Your task to perform on an android device: Check the best rated table lamp on Crate and Barrel Image 0: 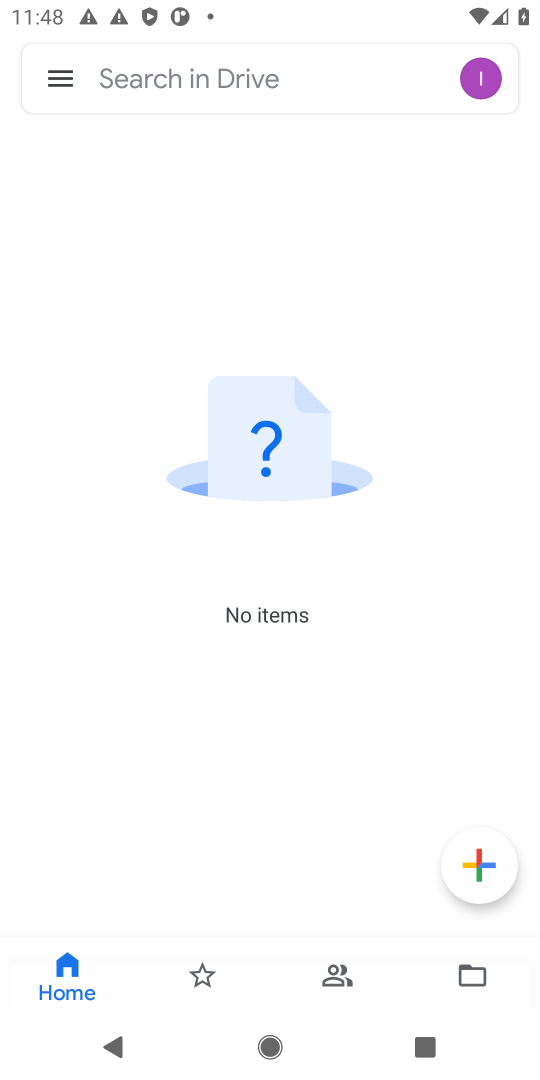
Step 0: press home button
Your task to perform on an android device: Check the best rated table lamp on Crate and Barrel Image 1: 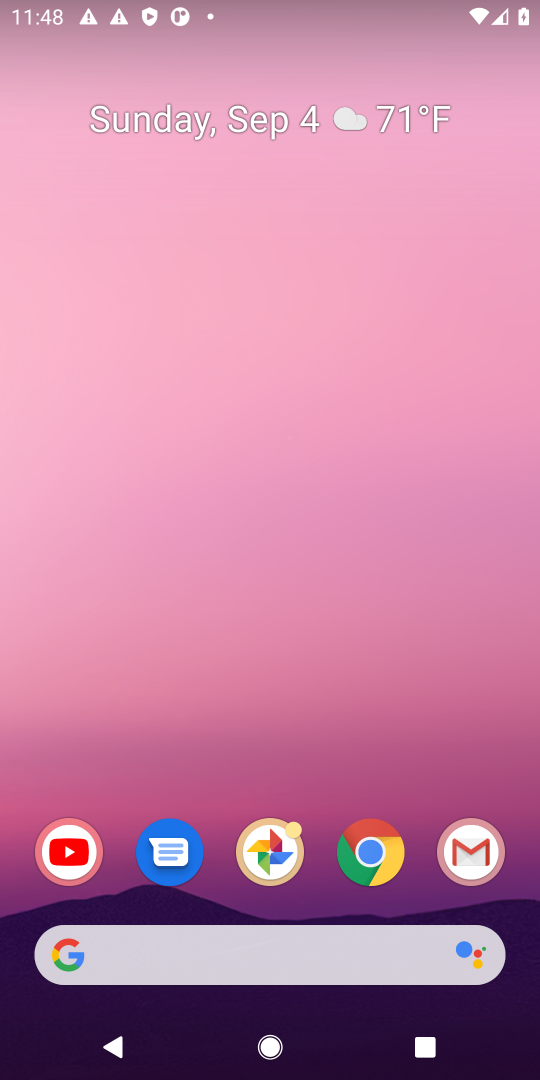
Step 1: click (371, 856)
Your task to perform on an android device: Check the best rated table lamp on Crate and Barrel Image 2: 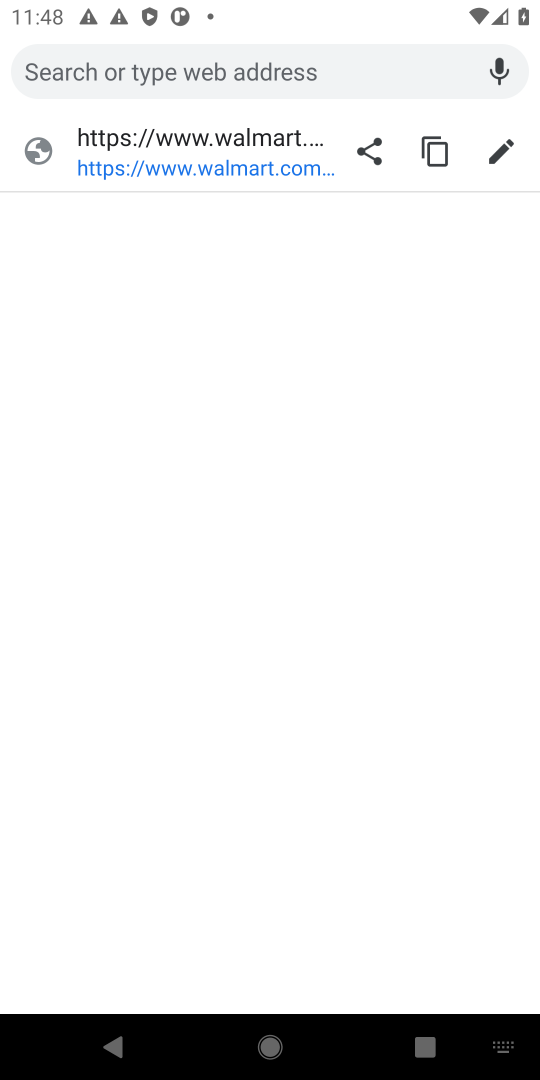
Step 2: type "Crate and Barrel"
Your task to perform on an android device: Check the best rated table lamp on Crate and Barrel Image 3: 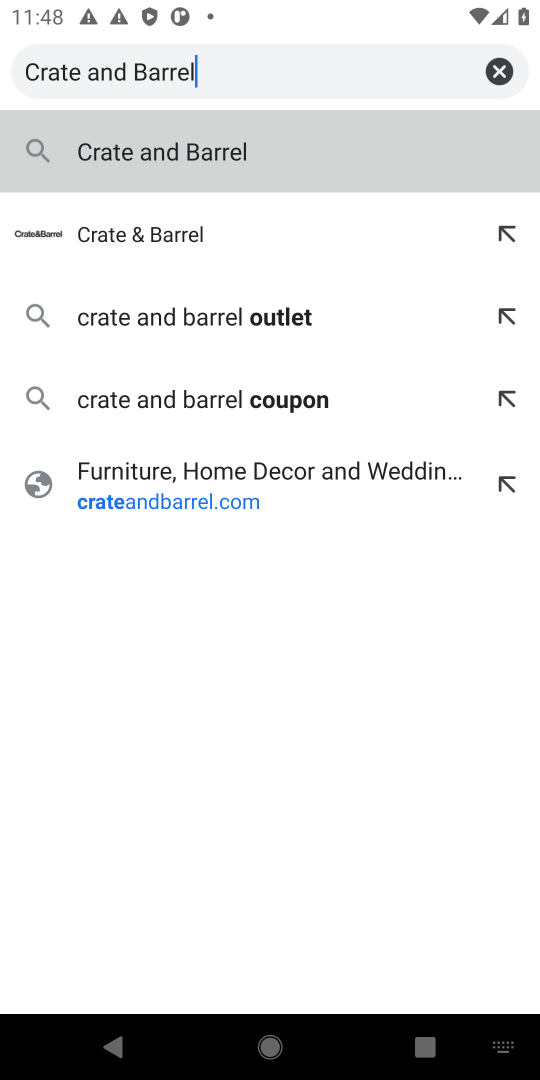
Step 3: click (163, 235)
Your task to perform on an android device: Check the best rated table lamp on Crate and Barrel Image 4: 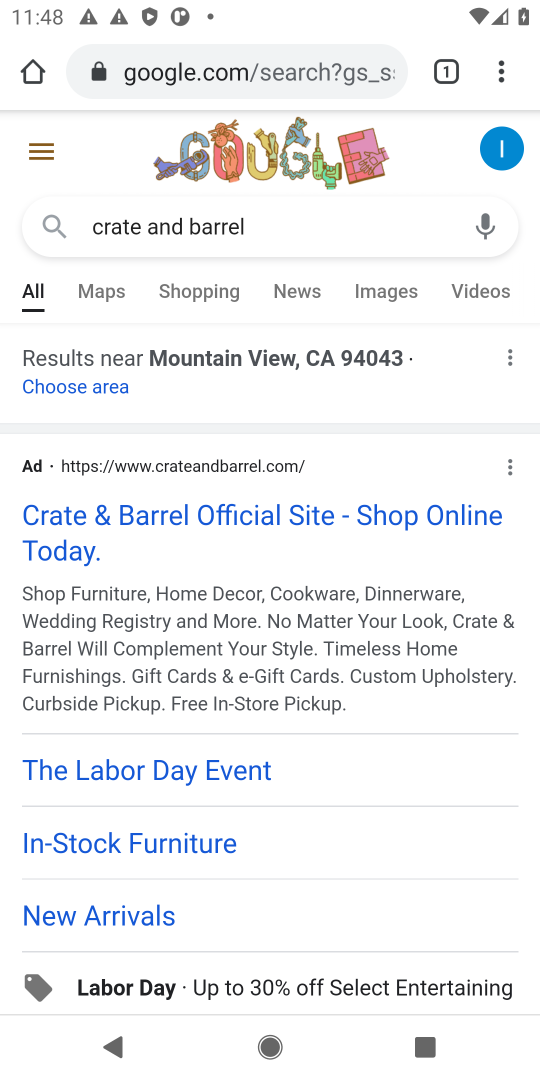
Step 4: click (103, 537)
Your task to perform on an android device: Check the best rated table lamp on Crate and Barrel Image 5: 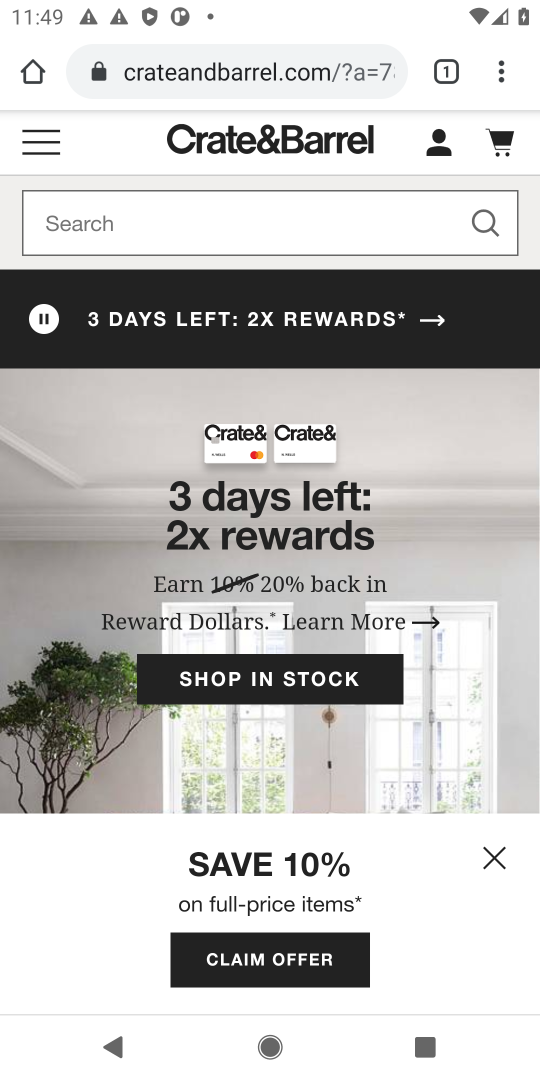
Step 5: click (100, 223)
Your task to perform on an android device: Check the best rated table lamp on Crate and Barrel Image 6: 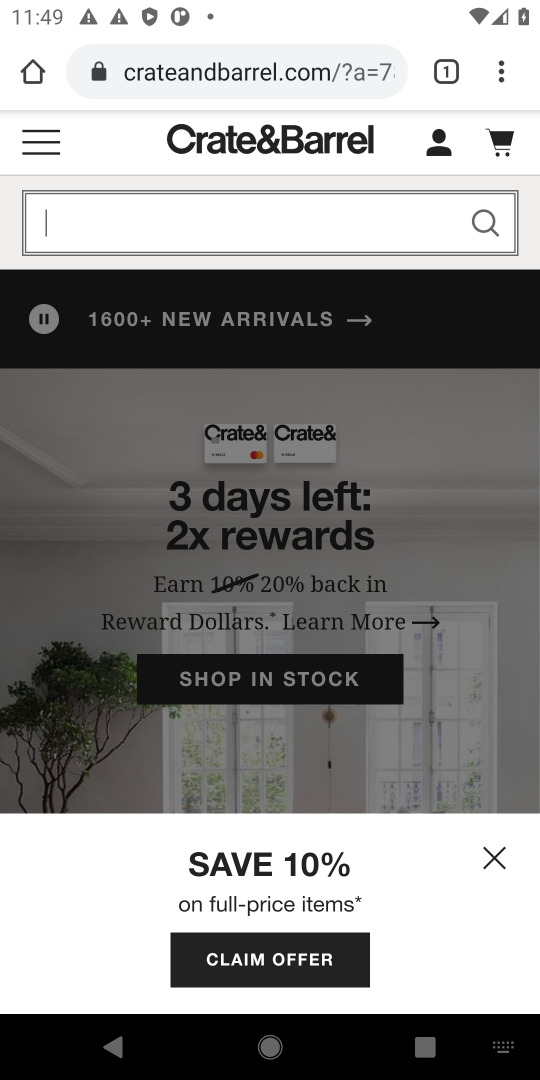
Step 6: type "table lamp"
Your task to perform on an android device: Check the best rated table lamp on Crate and Barrel Image 7: 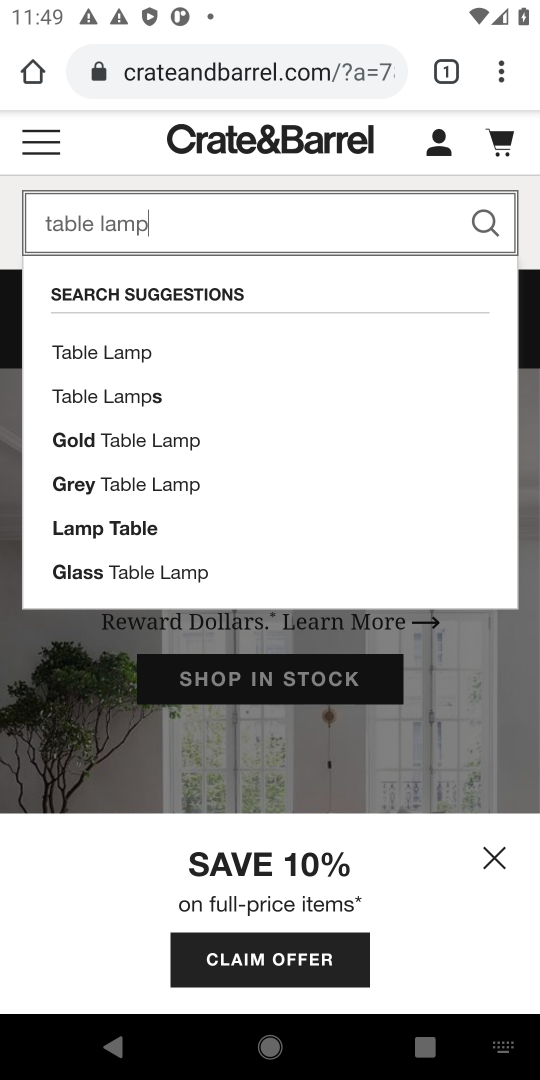
Step 7: click (88, 350)
Your task to perform on an android device: Check the best rated table lamp on Crate and Barrel Image 8: 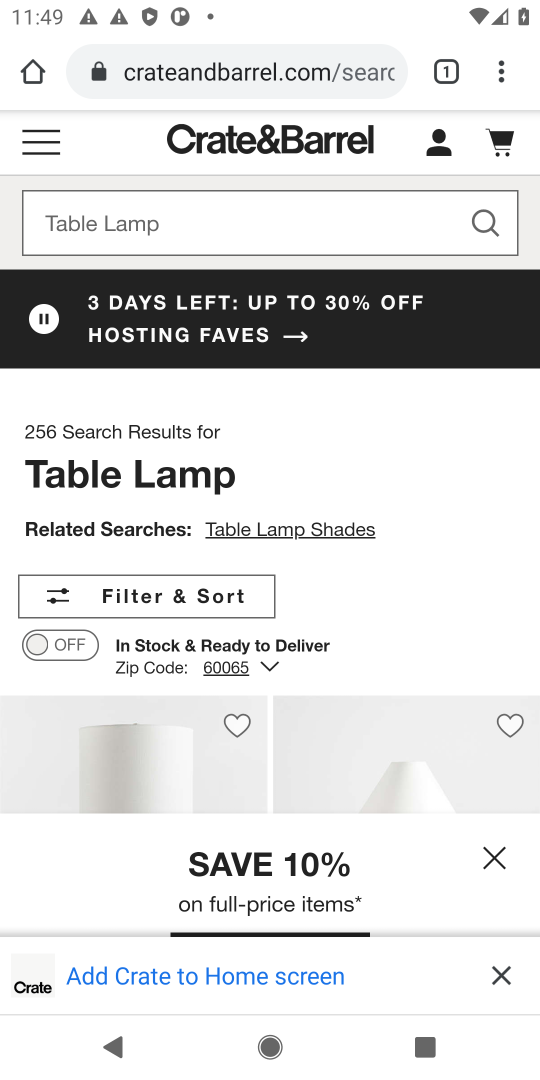
Step 8: click (56, 596)
Your task to perform on an android device: Check the best rated table lamp on Crate and Barrel Image 9: 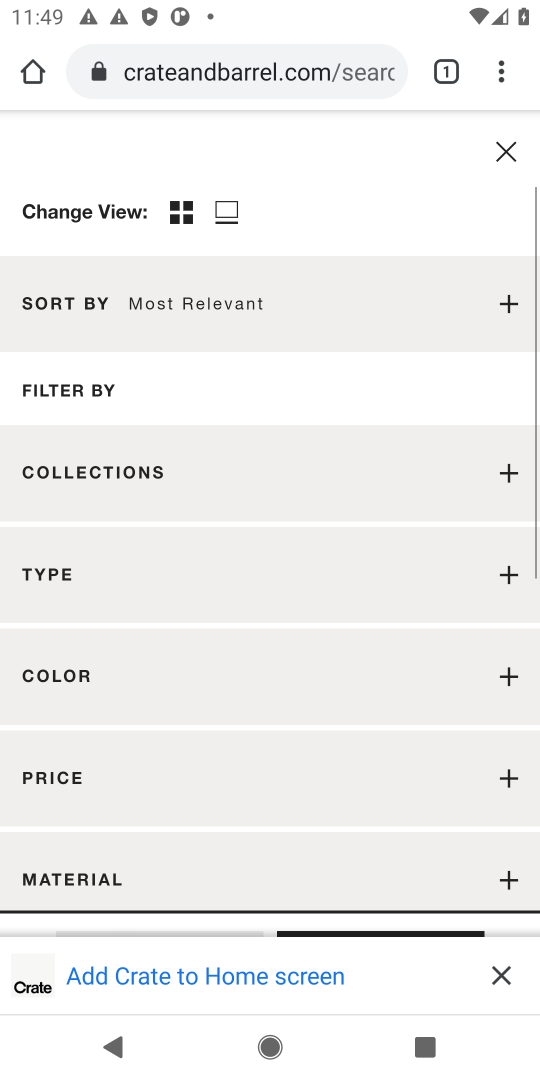
Step 9: click (514, 303)
Your task to perform on an android device: Check the best rated table lamp on Crate and Barrel Image 10: 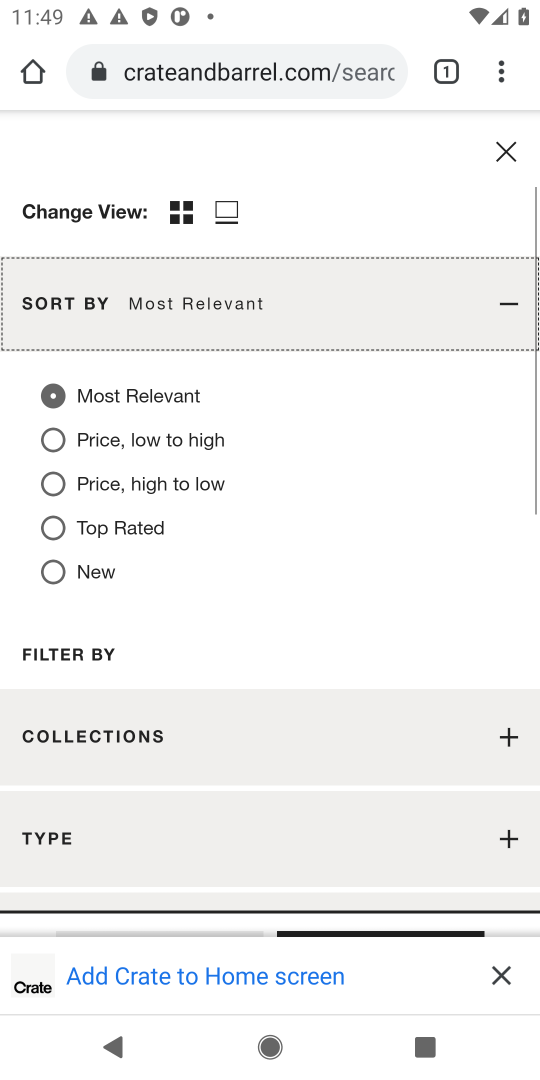
Step 10: click (48, 529)
Your task to perform on an android device: Check the best rated table lamp on Crate and Barrel Image 11: 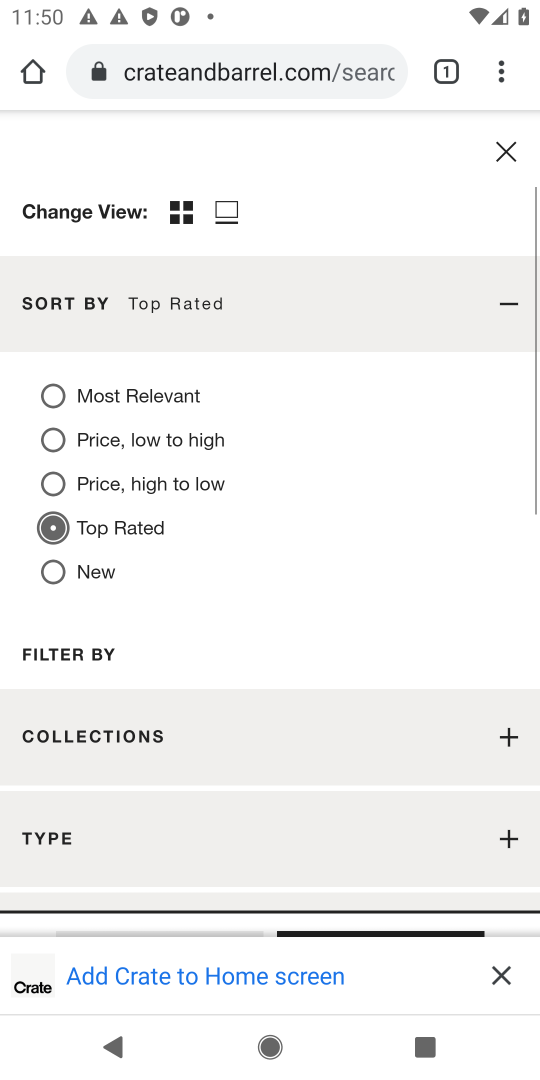
Step 11: click (496, 971)
Your task to perform on an android device: Check the best rated table lamp on Crate and Barrel Image 12: 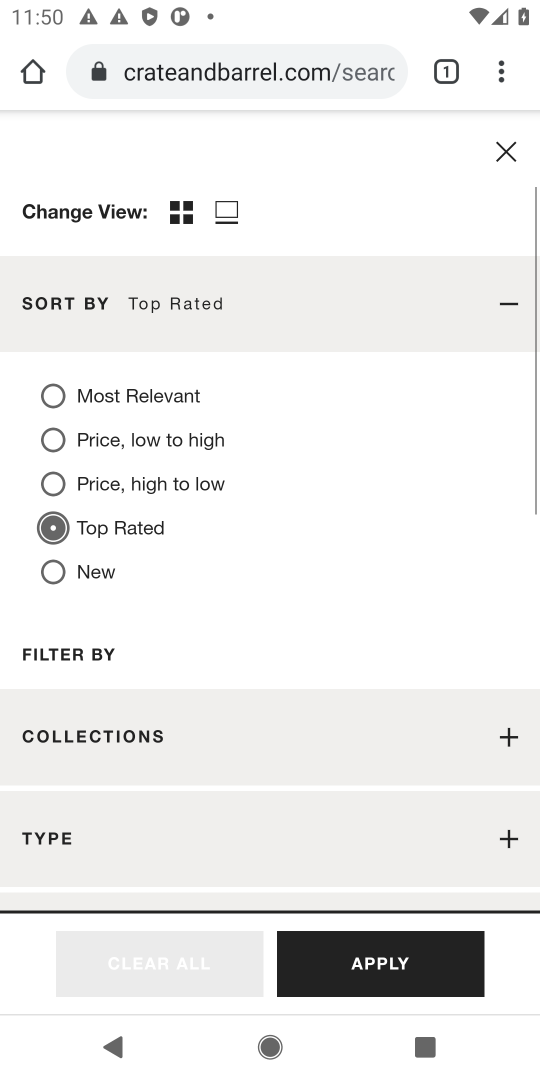
Step 12: click (388, 966)
Your task to perform on an android device: Check the best rated table lamp on Crate and Barrel Image 13: 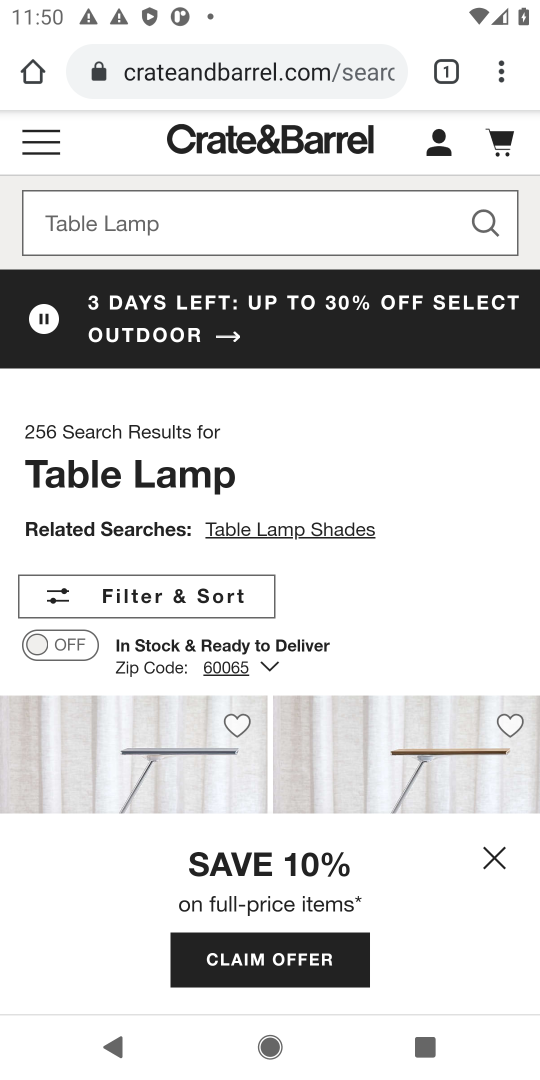
Step 13: click (492, 856)
Your task to perform on an android device: Check the best rated table lamp on Crate and Barrel Image 14: 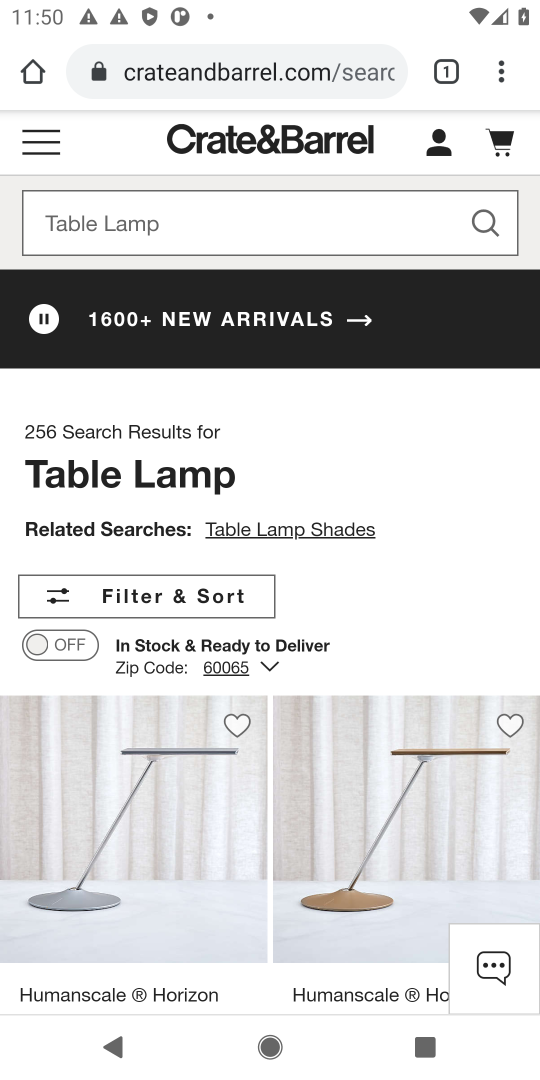
Step 14: task complete